Your task to perform on an android device: turn pop-ups on in chrome Image 0: 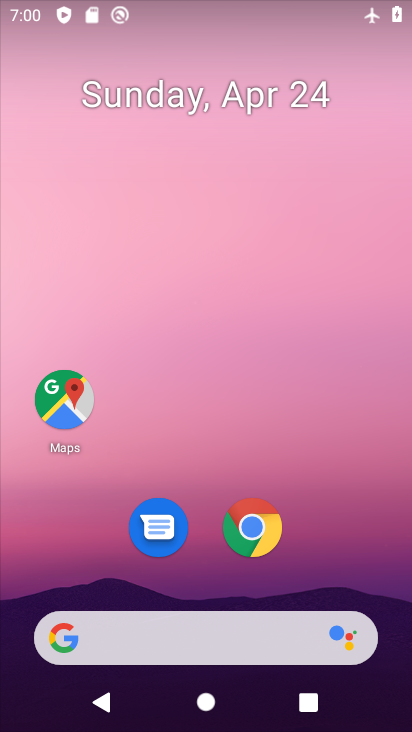
Step 0: drag from (354, 510) to (281, 16)
Your task to perform on an android device: turn pop-ups on in chrome Image 1: 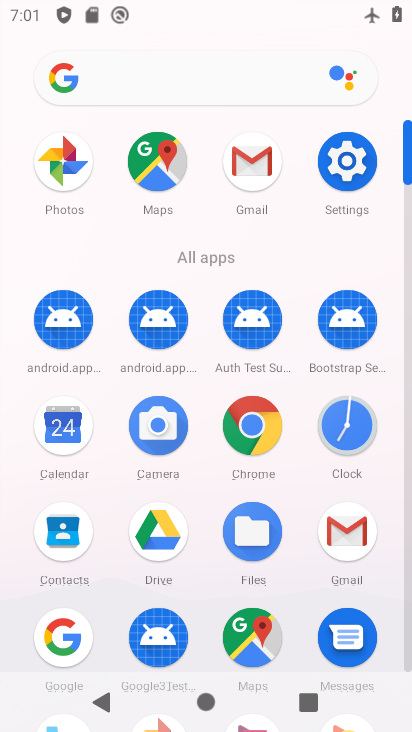
Step 1: click (258, 425)
Your task to perform on an android device: turn pop-ups on in chrome Image 2: 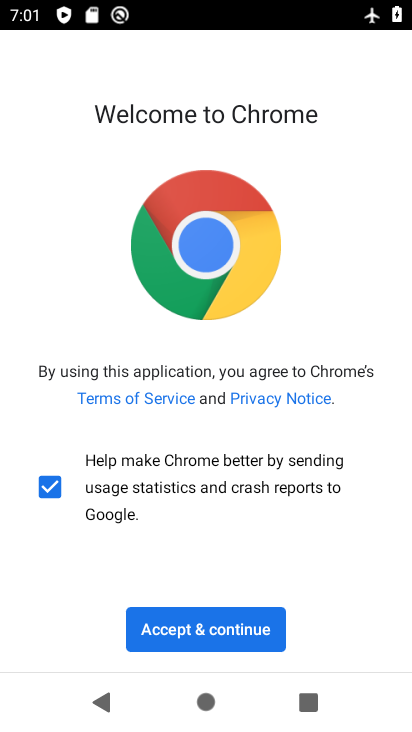
Step 2: click (261, 623)
Your task to perform on an android device: turn pop-ups on in chrome Image 3: 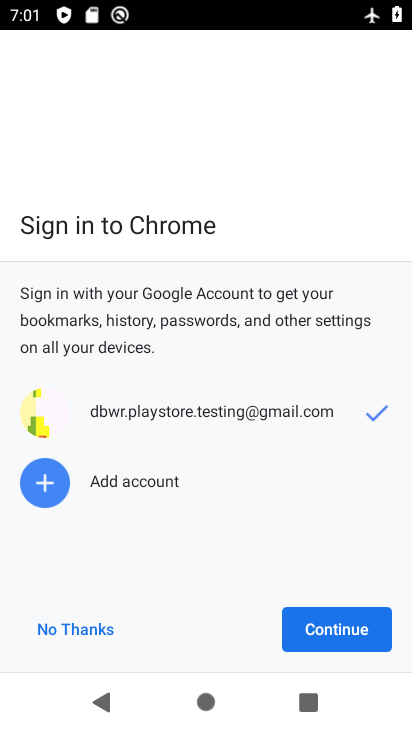
Step 3: click (347, 623)
Your task to perform on an android device: turn pop-ups on in chrome Image 4: 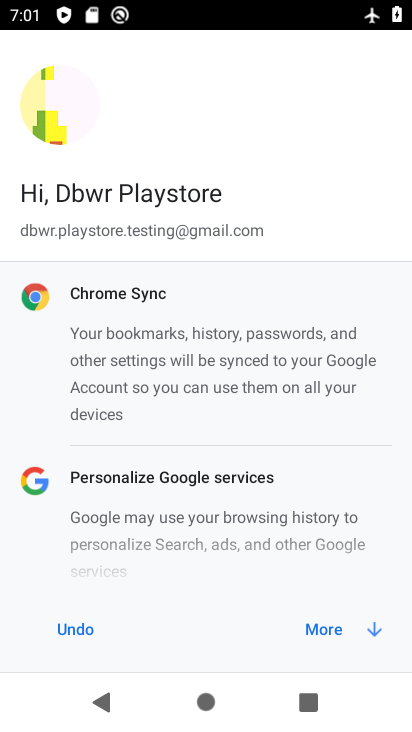
Step 4: click (343, 623)
Your task to perform on an android device: turn pop-ups on in chrome Image 5: 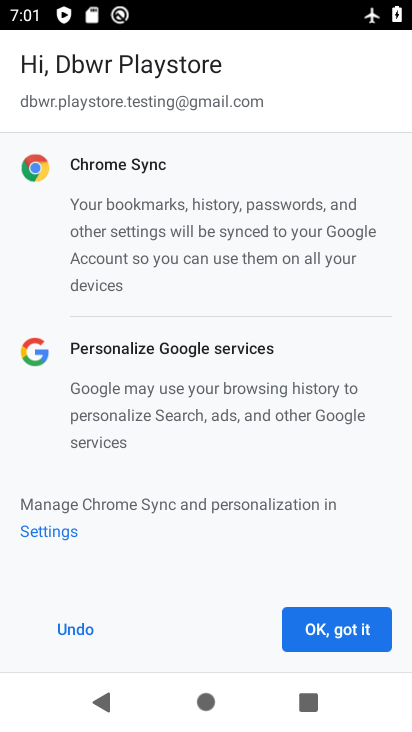
Step 5: click (339, 621)
Your task to perform on an android device: turn pop-ups on in chrome Image 6: 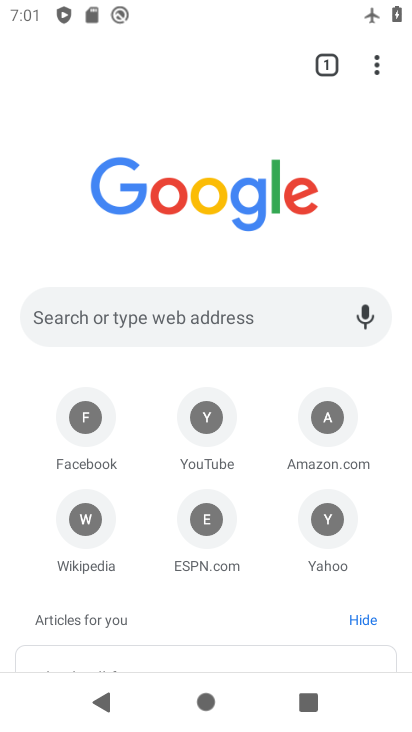
Step 6: click (375, 68)
Your task to perform on an android device: turn pop-ups on in chrome Image 7: 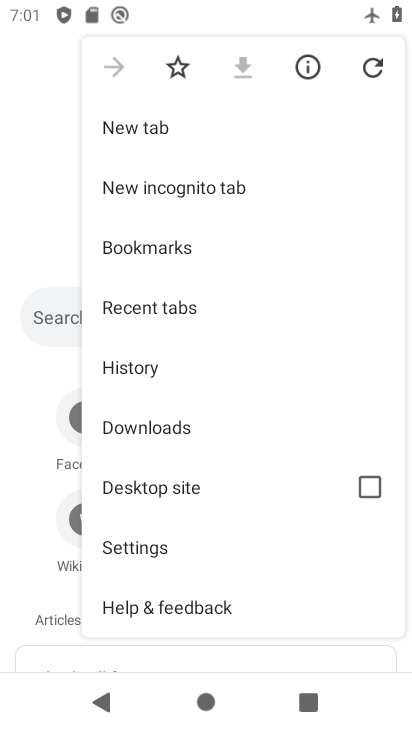
Step 7: click (179, 542)
Your task to perform on an android device: turn pop-ups on in chrome Image 8: 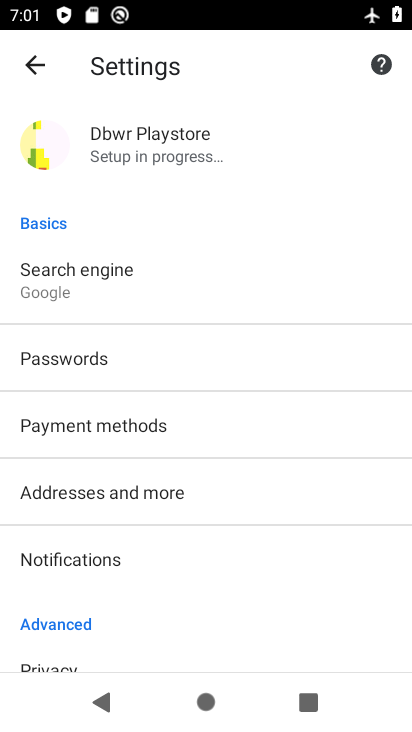
Step 8: drag from (177, 579) to (186, 99)
Your task to perform on an android device: turn pop-ups on in chrome Image 9: 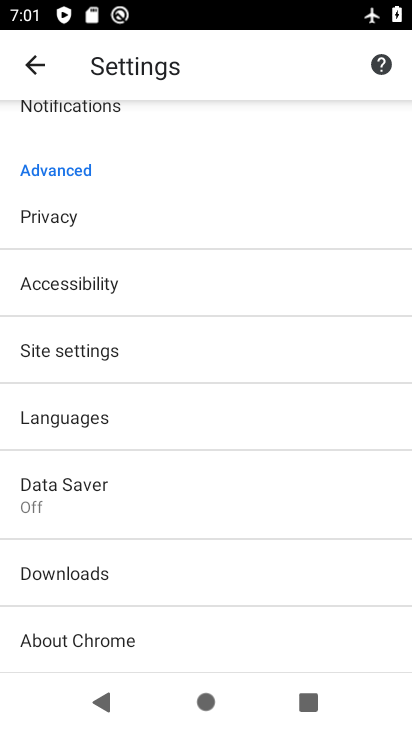
Step 9: click (102, 350)
Your task to perform on an android device: turn pop-ups on in chrome Image 10: 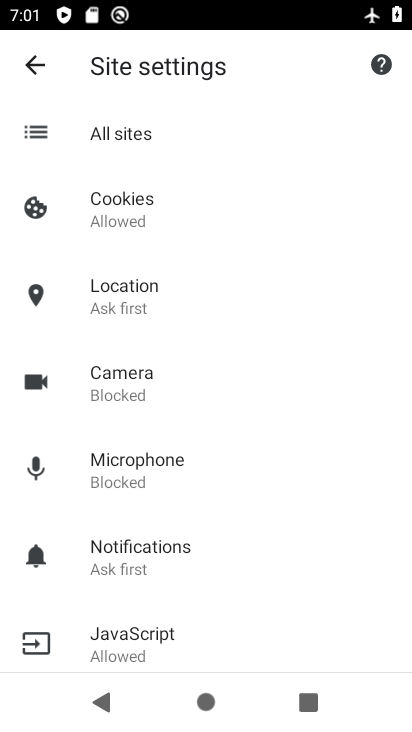
Step 10: drag from (156, 578) to (188, 245)
Your task to perform on an android device: turn pop-ups on in chrome Image 11: 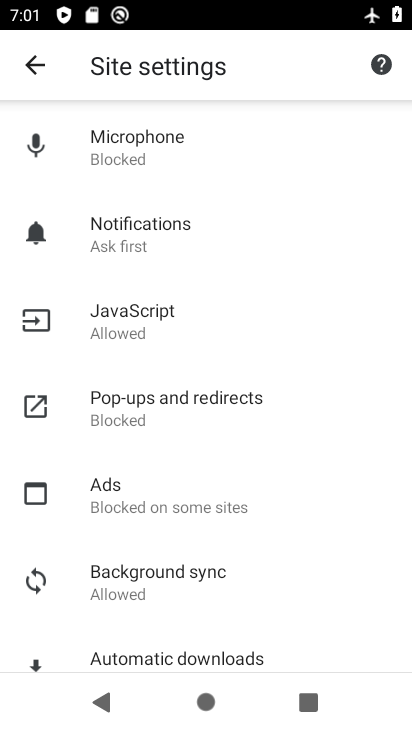
Step 11: click (198, 407)
Your task to perform on an android device: turn pop-ups on in chrome Image 12: 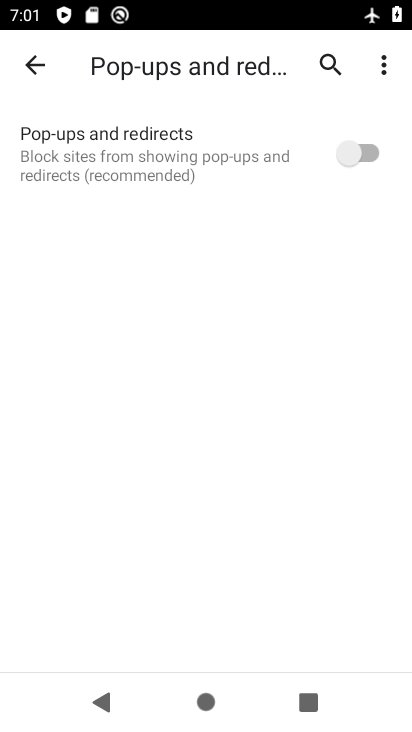
Step 12: click (349, 165)
Your task to perform on an android device: turn pop-ups on in chrome Image 13: 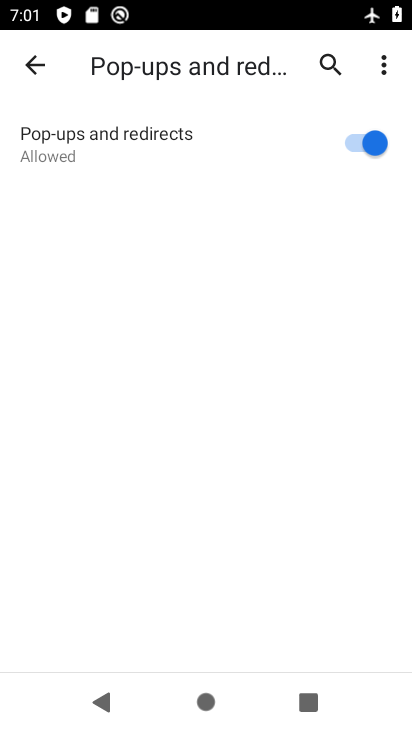
Step 13: task complete